Your task to perform on an android device: turn pop-ups on in chrome Image 0: 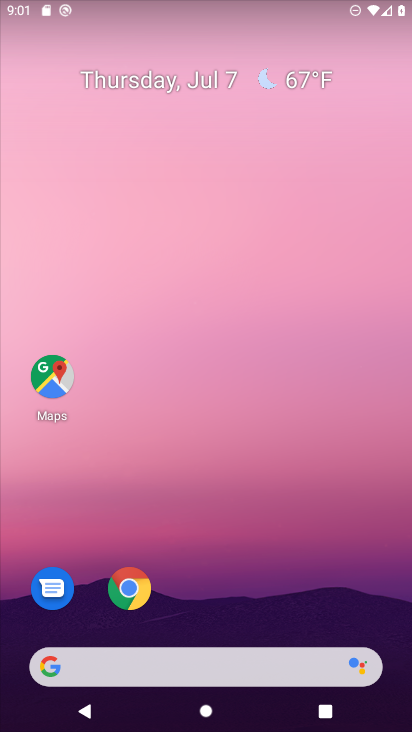
Step 0: click (132, 588)
Your task to perform on an android device: turn pop-ups on in chrome Image 1: 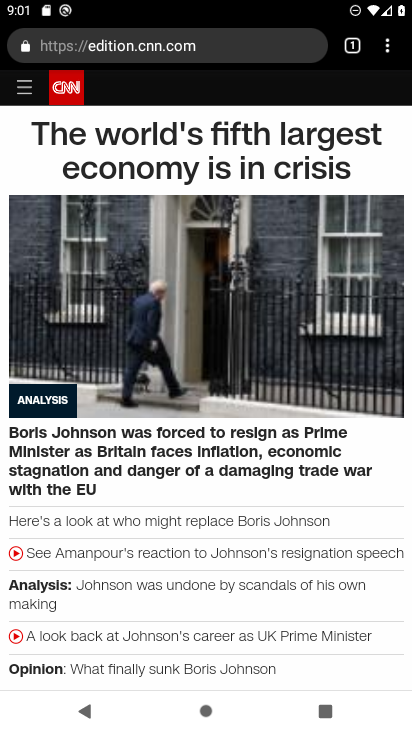
Step 1: click (390, 47)
Your task to perform on an android device: turn pop-ups on in chrome Image 2: 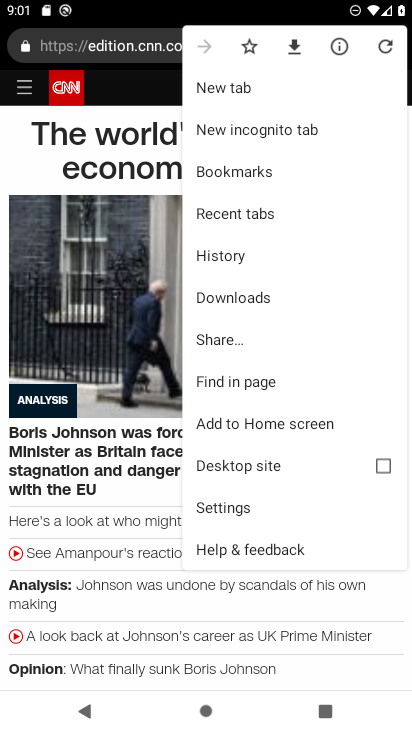
Step 2: click (226, 503)
Your task to perform on an android device: turn pop-ups on in chrome Image 3: 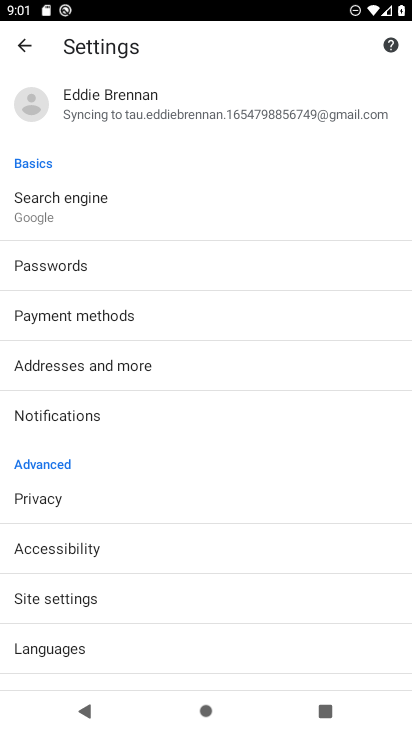
Step 3: click (91, 597)
Your task to perform on an android device: turn pop-ups on in chrome Image 4: 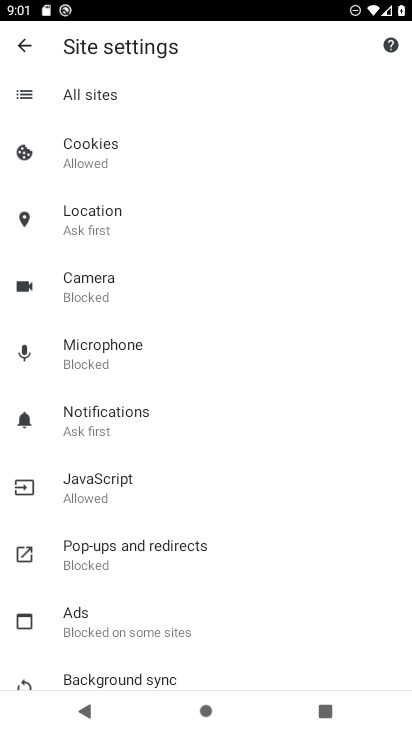
Step 4: click (132, 545)
Your task to perform on an android device: turn pop-ups on in chrome Image 5: 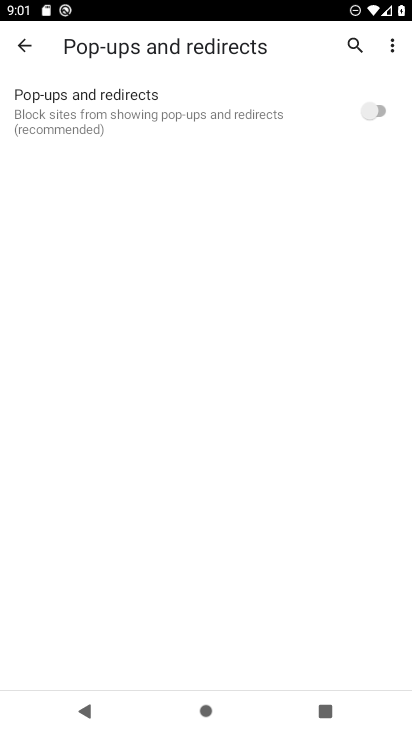
Step 5: click (379, 111)
Your task to perform on an android device: turn pop-ups on in chrome Image 6: 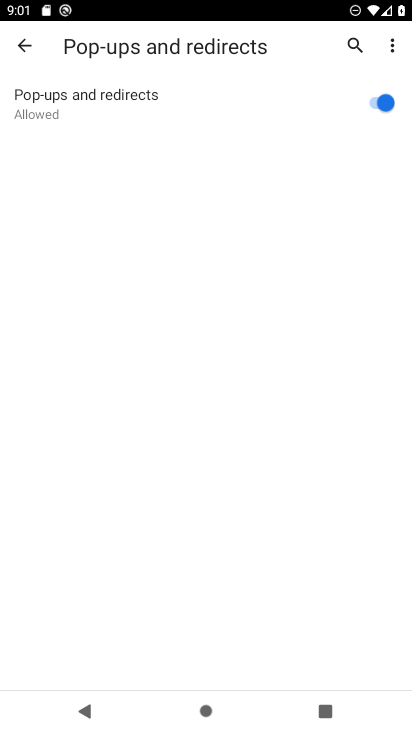
Step 6: task complete